Your task to perform on an android device: Open ESPN.com Image 0: 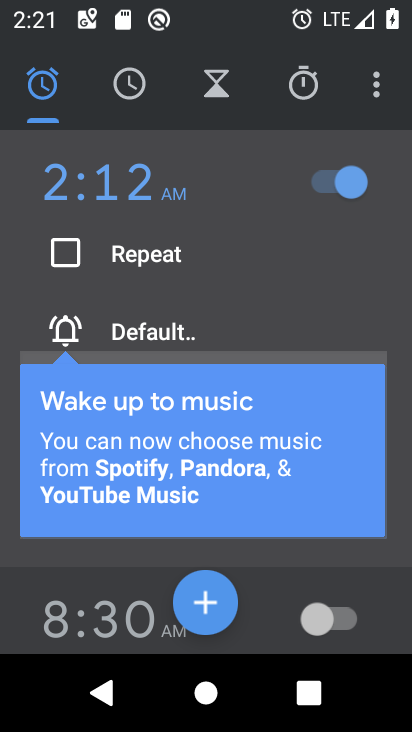
Step 0: press home button
Your task to perform on an android device: Open ESPN.com Image 1: 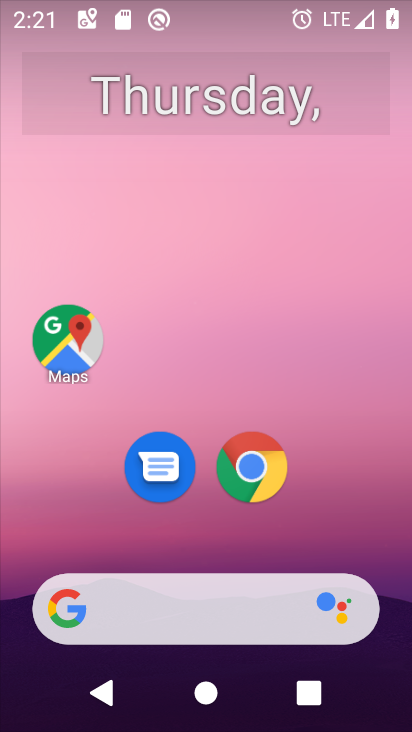
Step 1: click (268, 468)
Your task to perform on an android device: Open ESPN.com Image 2: 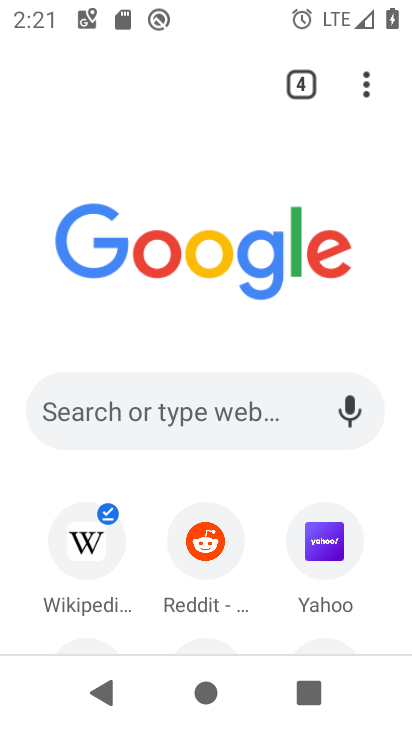
Step 2: drag from (263, 583) to (219, 481)
Your task to perform on an android device: Open ESPN.com Image 3: 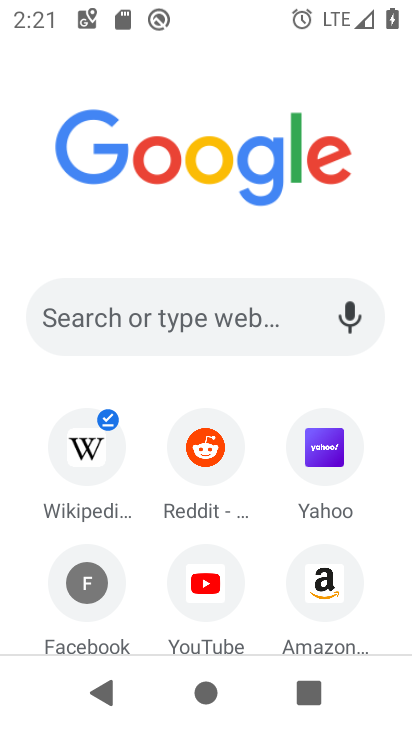
Step 3: click (168, 328)
Your task to perform on an android device: Open ESPN.com Image 4: 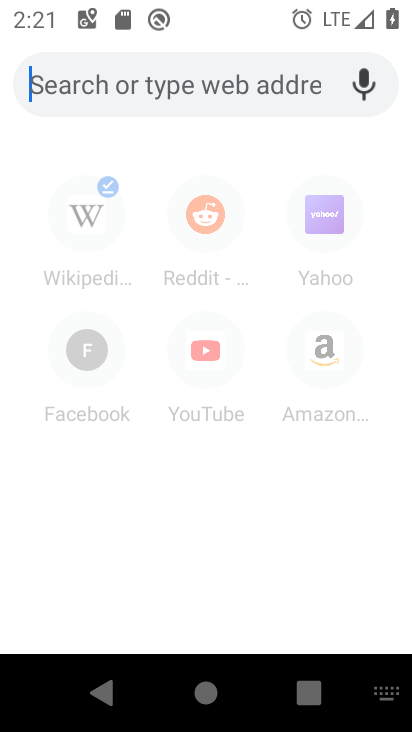
Step 4: type "espn"
Your task to perform on an android device: Open ESPN.com Image 5: 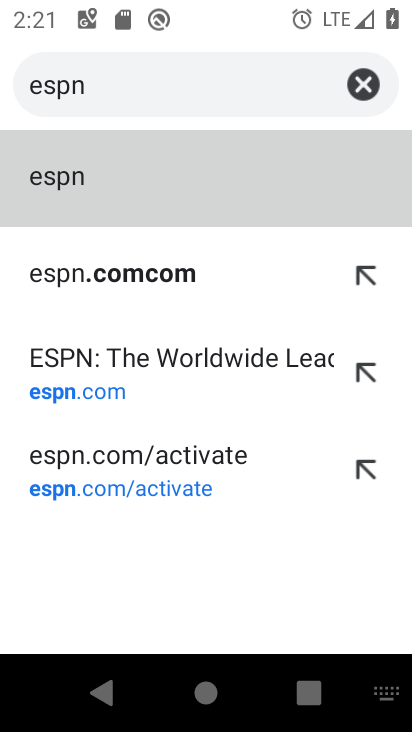
Step 5: click (116, 392)
Your task to perform on an android device: Open ESPN.com Image 6: 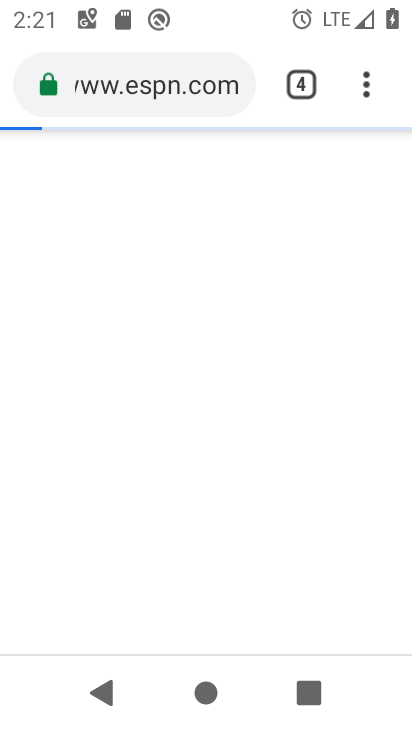
Step 6: task complete